Your task to perform on an android device: When is my next meeting? Image 0: 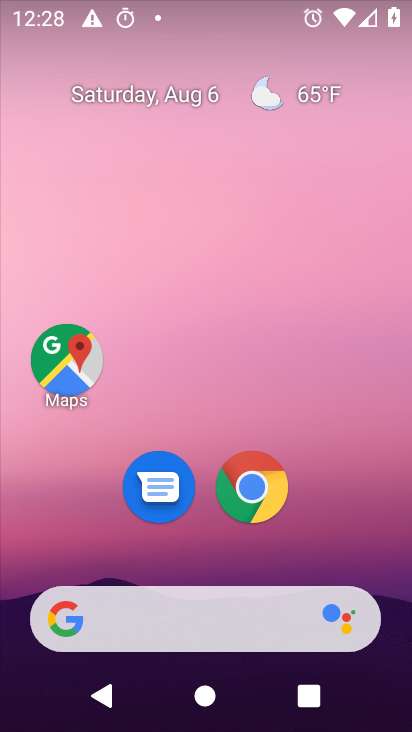
Step 0: drag from (179, 494) to (275, 21)
Your task to perform on an android device: When is my next meeting? Image 1: 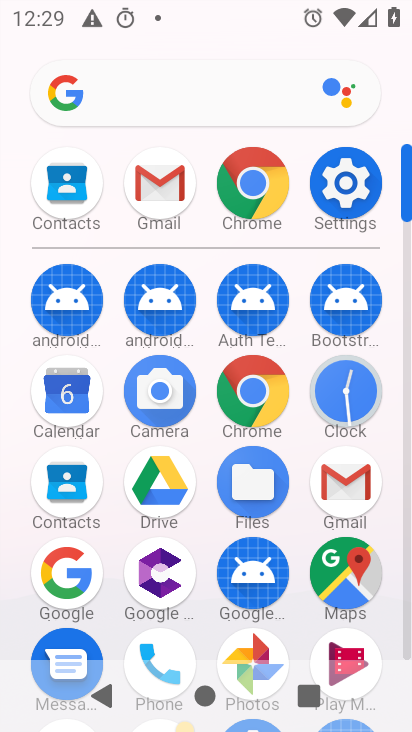
Step 1: click (66, 396)
Your task to perform on an android device: When is my next meeting? Image 2: 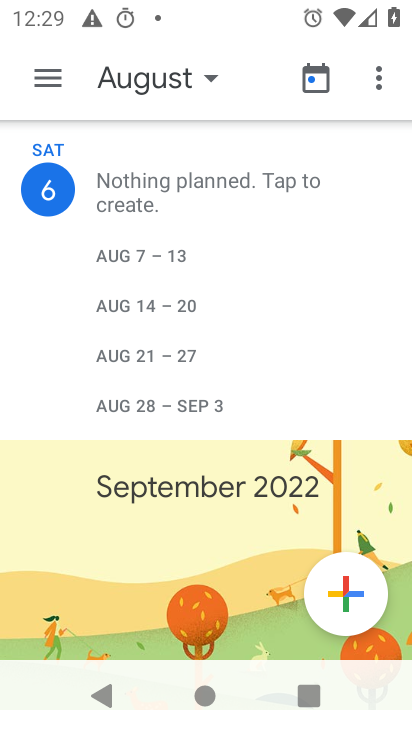
Step 2: task complete